Your task to perform on an android device: open a new tab in the chrome app Image 0: 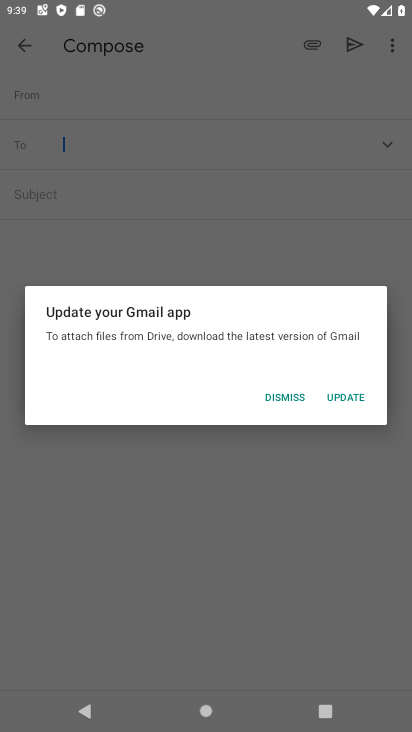
Step 0: click (329, 379)
Your task to perform on an android device: open a new tab in the chrome app Image 1: 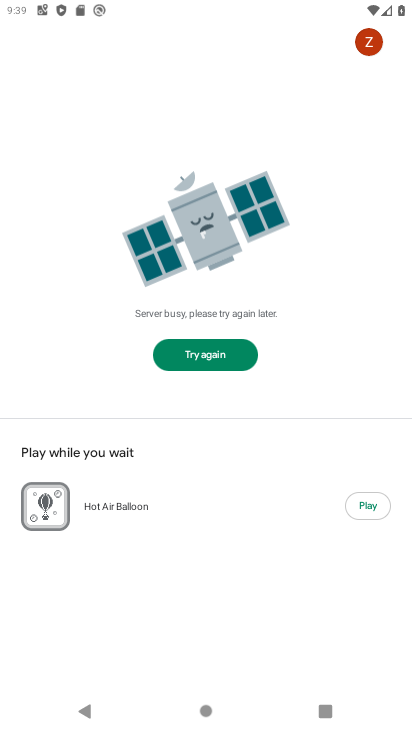
Step 1: press back button
Your task to perform on an android device: open a new tab in the chrome app Image 2: 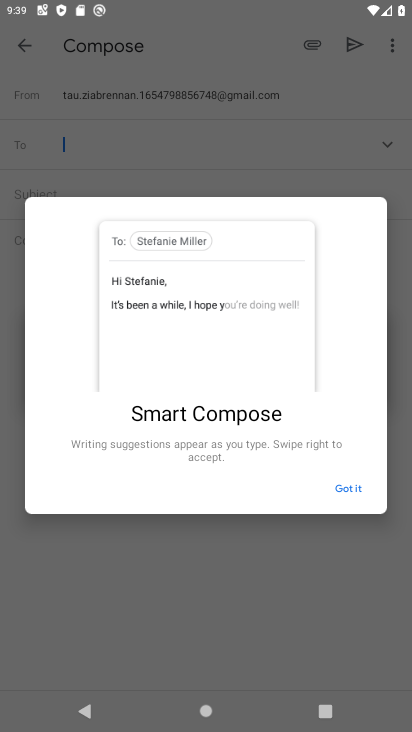
Step 2: click (99, 130)
Your task to perform on an android device: open a new tab in the chrome app Image 3: 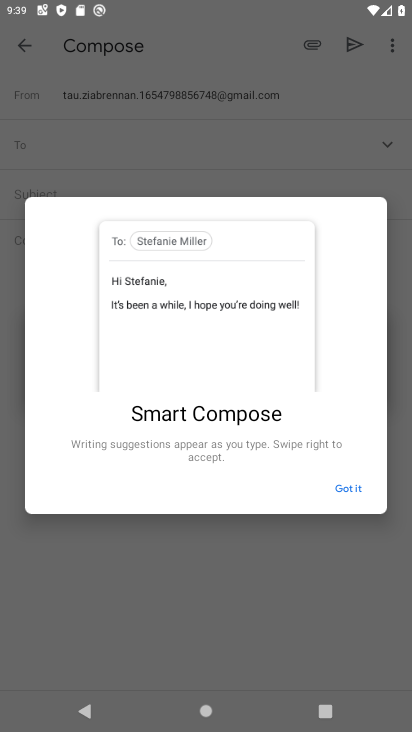
Step 3: click (121, 129)
Your task to perform on an android device: open a new tab in the chrome app Image 4: 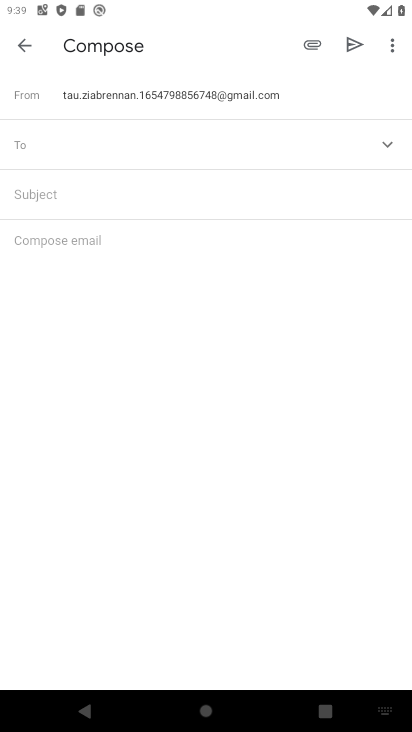
Step 4: click (16, 43)
Your task to perform on an android device: open a new tab in the chrome app Image 5: 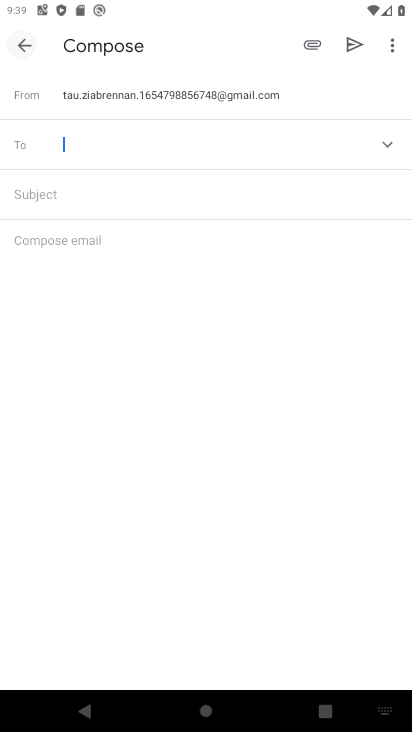
Step 5: click (17, 43)
Your task to perform on an android device: open a new tab in the chrome app Image 6: 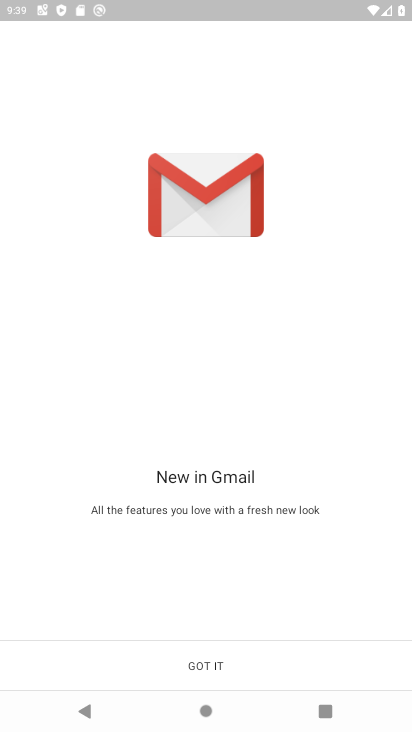
Step 6: press back button
Your task to perform on an android device: open a new tab in the chrome app Image 7: 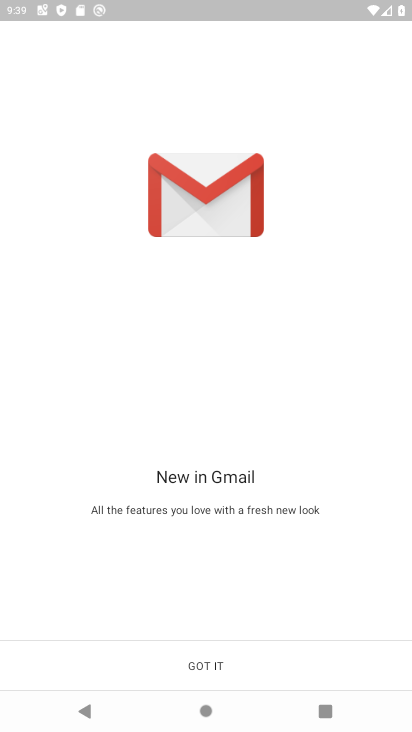
Step 7: press back button
Your task to perform on an android device: open a new tab in the chrome app Image 8: 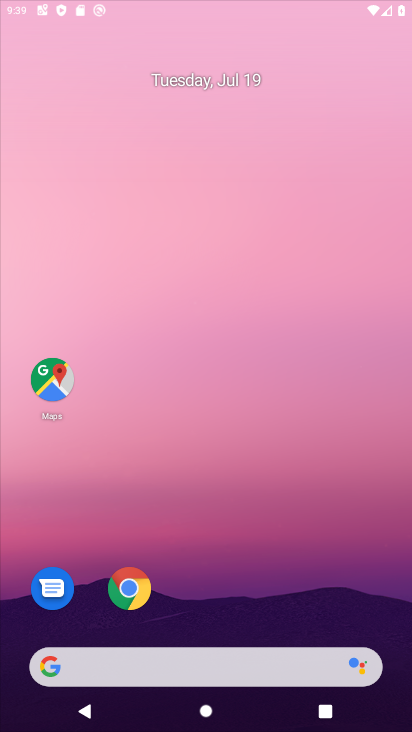
Step 8: press back button
Your task to perform on an android device: open a new tab in the chrome app Image 9: 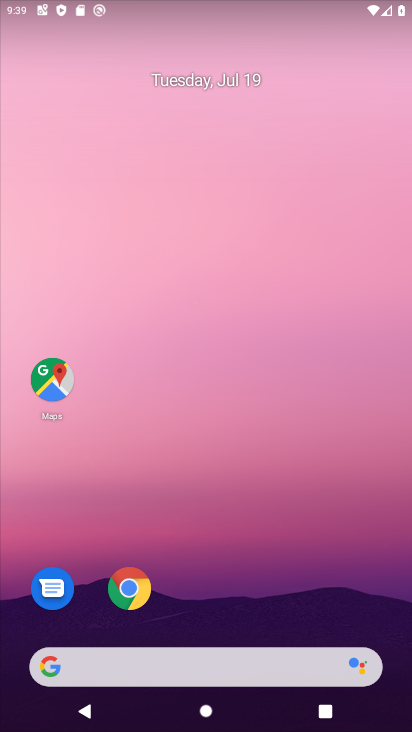
Step 9: drag from (246, 431) to (246, 189)
Your task to perform on an android device: open a new tab in the chrome app Image 10: 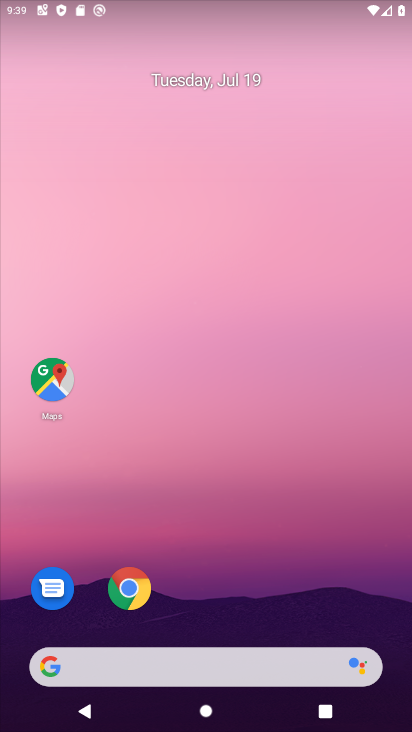
Step 10: click (186, 148)
Your task to perform on an android device: open a new tab in the chrome app Image 11: 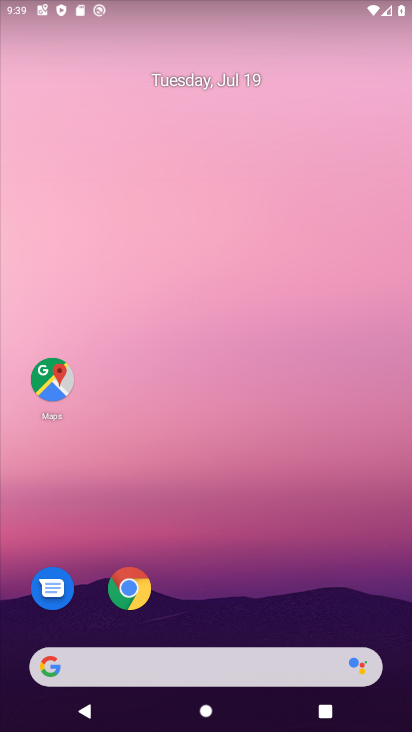
Step 11: drag from (218, 567) to (181, 126)
Your task to perform on an android device: open a new tab in the chrome app Image 12: 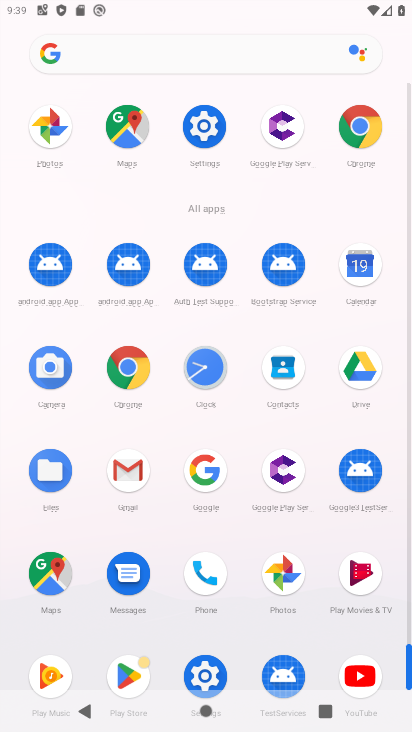
Step 12: click (356, 126)
Your task to perform on an android device: open a new tab in the chrome app Image 13: 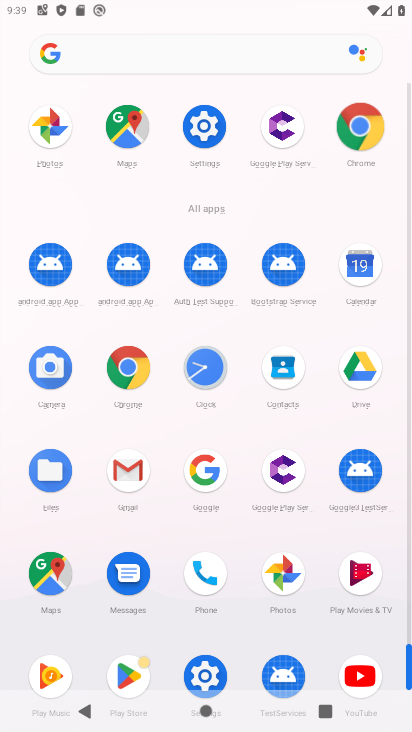
Step 13: click (356, 126)
Your task to perform on an android device: open a new tab in the chrome app Image 14: 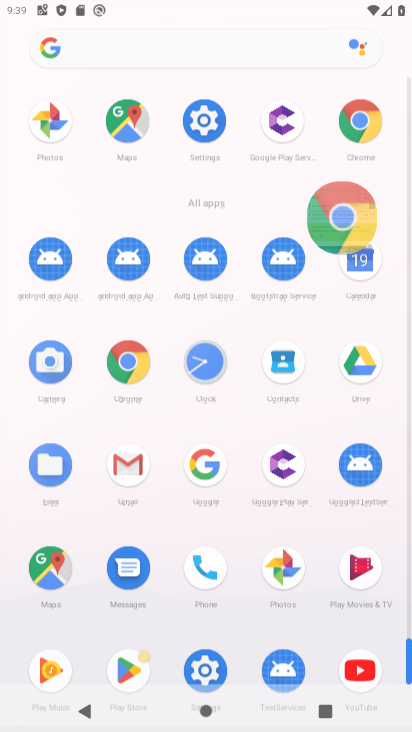
Step 14: click (355, 125)
Your task to perform on an android device: open a new tab in the chrome app Image 15: 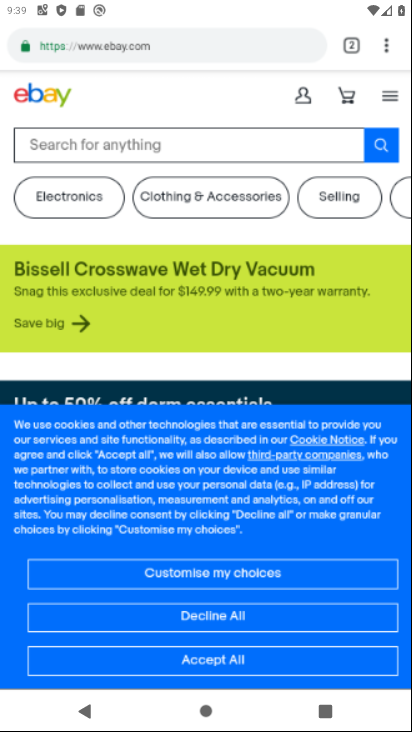
Step 15: click (355, 125)
Your task to perform on an android device: open a new tab in the chrome app Image 16: 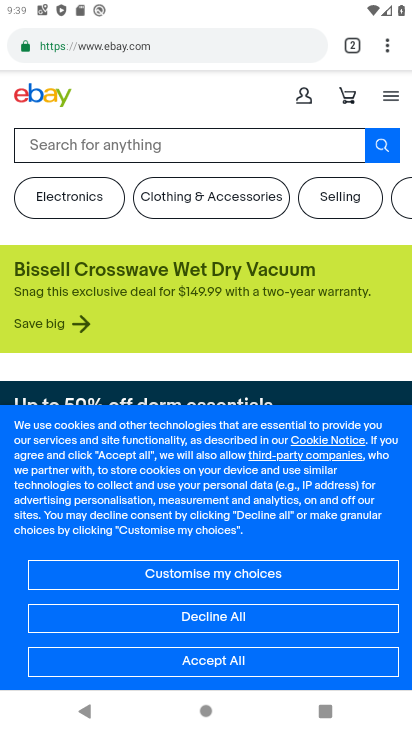
Step 16: drag from (374, 44) to (221, 91)
Your task to perform on an android device: open a new tab in the chrome app Image 17: 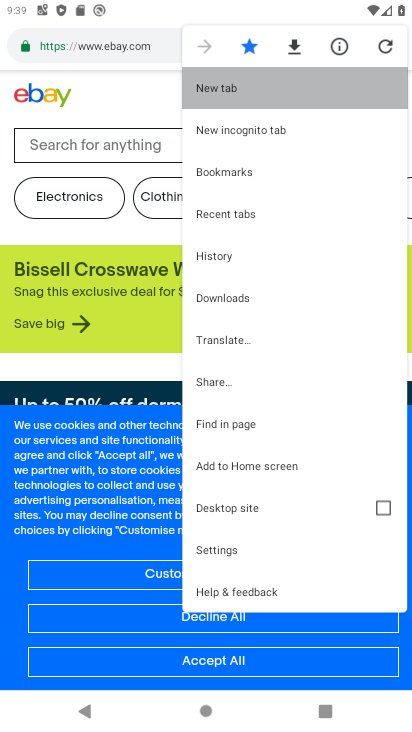
Step 17: click (222, 89)
Your task to perform on an android device: open a new tab in the chrome app Image 18: 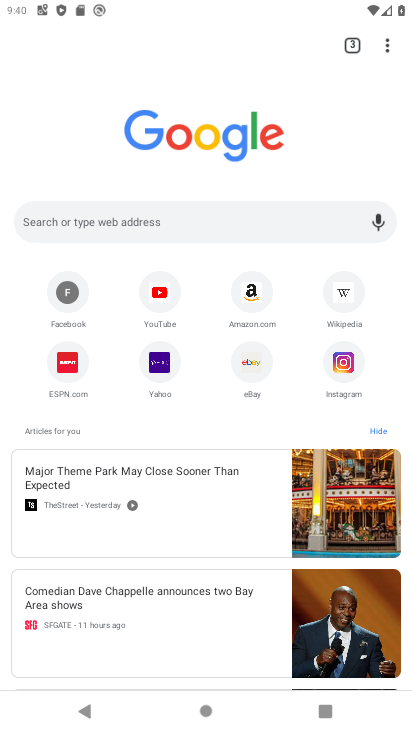
Step 18: task complete